Your task to perform on an android device: change the clock display to analog Image 0: 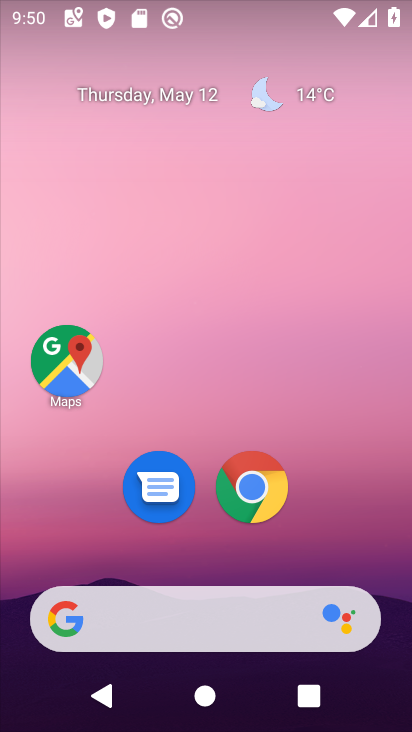
Step 0: drag from (82, 480) to (218, 82)
Your task to perform on an android device: change the clock display to analog Image 1: 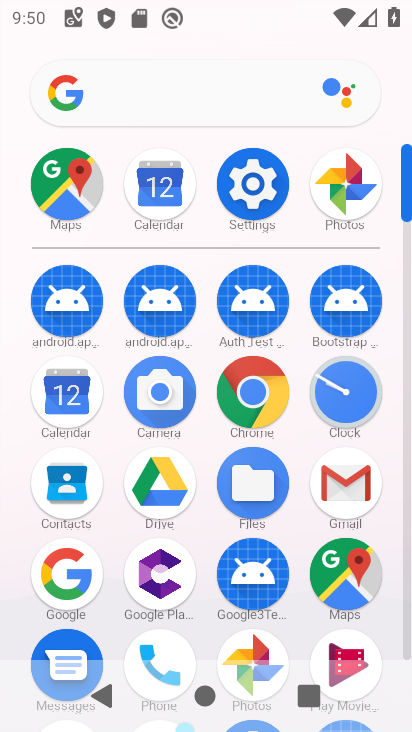
Step 1: click (345, 412)
Your task to perform on an android device: change the clock display to analog Image 2: 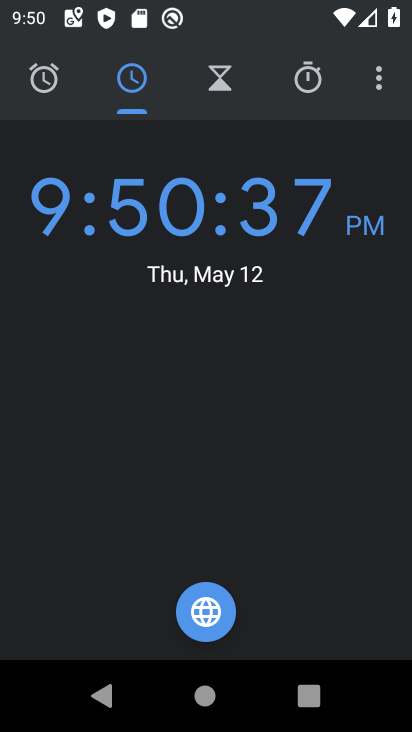
Step 2: click (379, 92)
Your task to perform on an android device: change the clock display to analog Image 3: 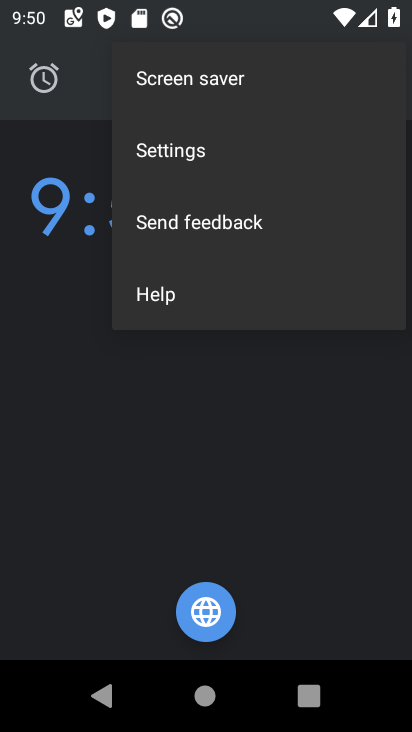
Step 3: click (212, 154)
Your task to perform on an android device: change the clock display to analog Image 4: 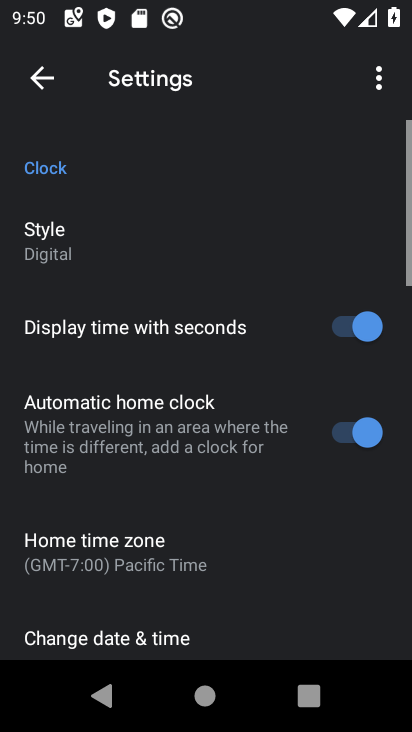
Step 4: click (135, 257)
Your task to perform on an android device: change the clock display to analog Image 5: 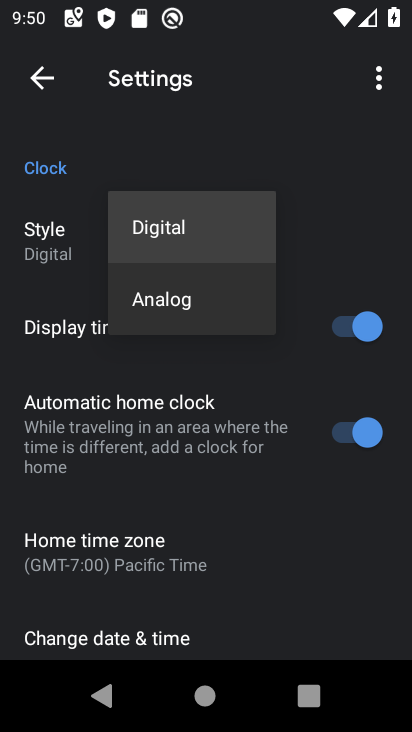
Step 5: click (137, 299)
Your task to perform on an android device: change the clock display to analog Image 6: 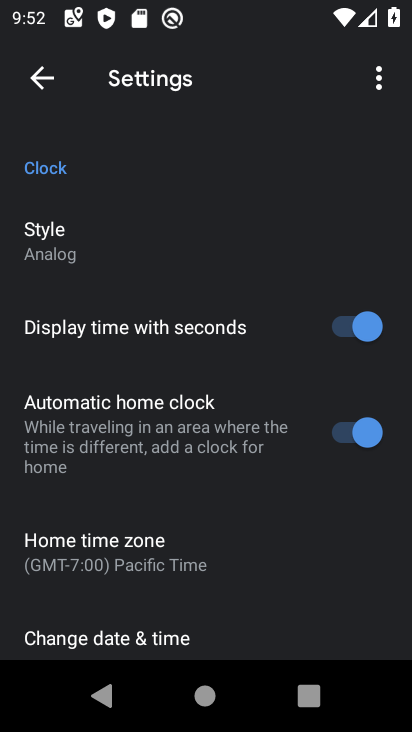
Step 6: task complete